Your task to perform on an android device: Go to Maps Image 0: 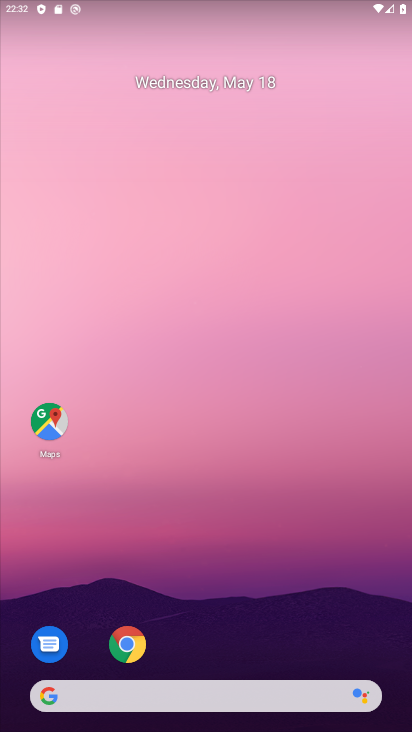
Step 0: click (49, 428)
Your task to perform on an android device: Go to Maps Image 1: 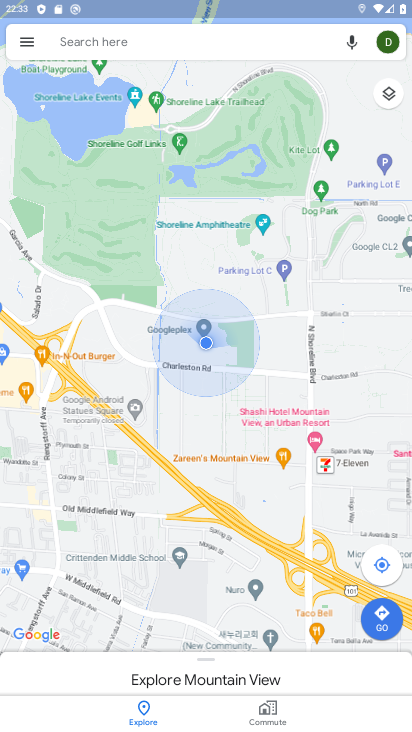
Step 1: task complete